Your task to perform on an android device: move an email to a new category in the gmail app Image 0: 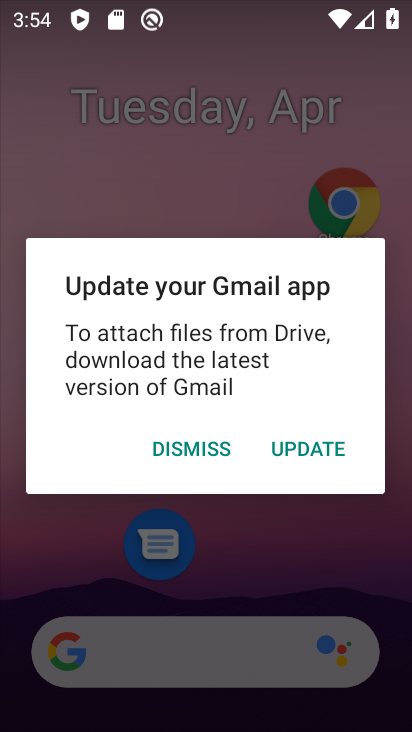
Step 0: click (189, 447)
Your task to perform on an android device: move an email to a new category in the gmail app Image 1: 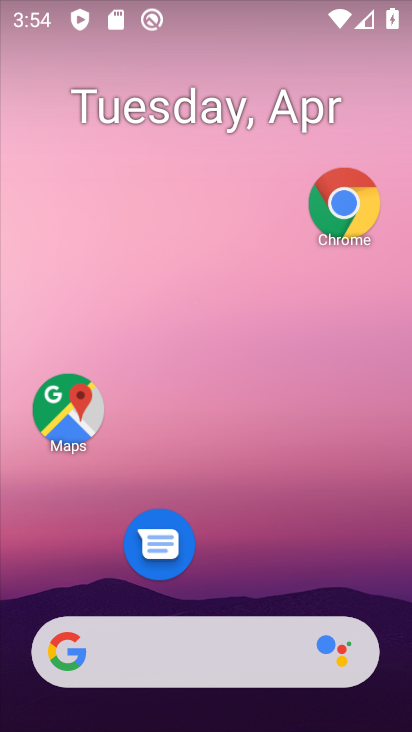
Step 1: drag from (257, 569) to (262, 12)
Your task to perform on an android device: move an email to a new category in the gmail app Image 2: 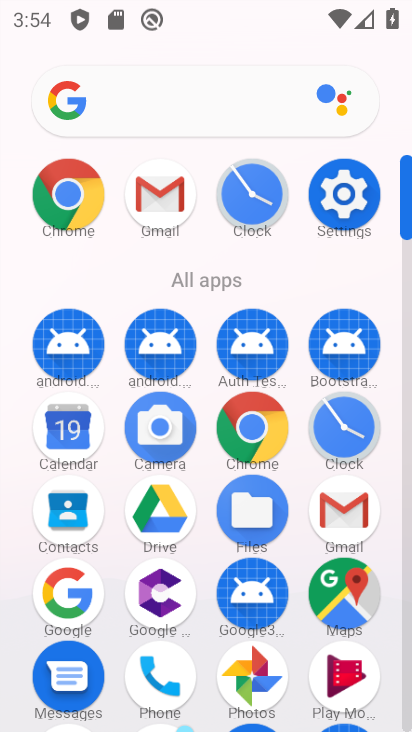
Step 2: click (342, 499)
Your task to perform on an android device: move an email to a new category in the gmail app Image 3: 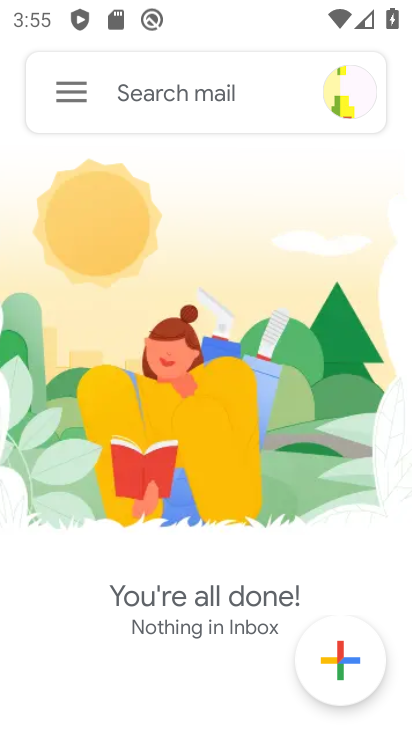
Step 3: click (67, 93)
Your task to perform on an android device: move an email to a new category in the gmail app Image 4: 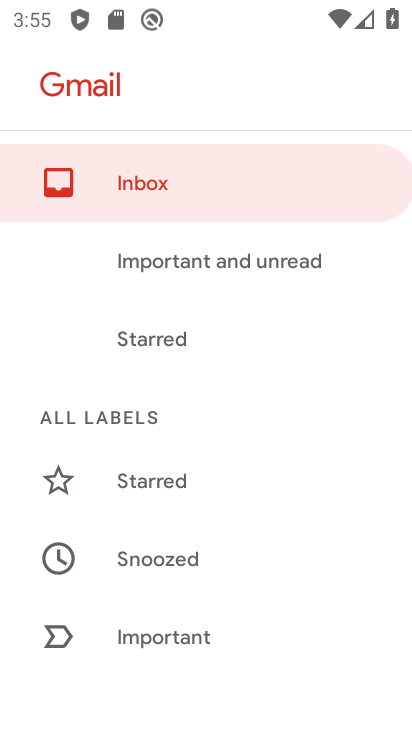
Step 4: drag from (177, 567) to (252, 14)
Your task to perform on an android device: move an email to a new category in the gmail app Image 5: 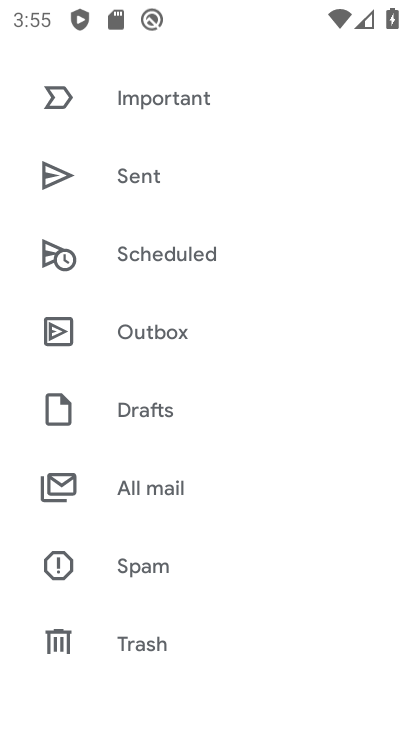
Step 5: click (143, 478)
Your task to perform on an android device: move an email to a new category in the gmail app Image 6: 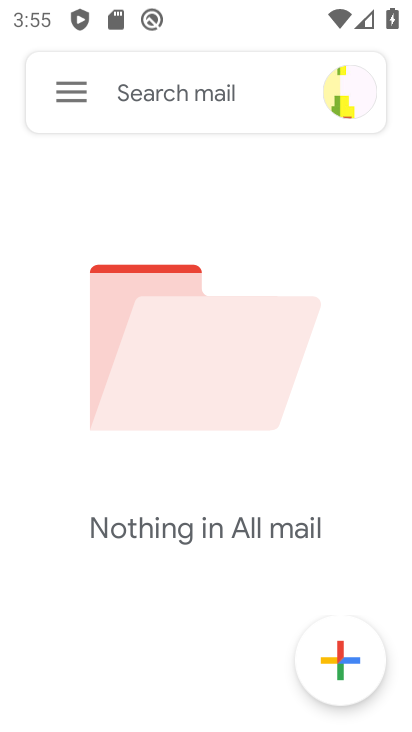
Step 6: task complete